Your task to perform on an android device: Do I have any events today? Image 0: 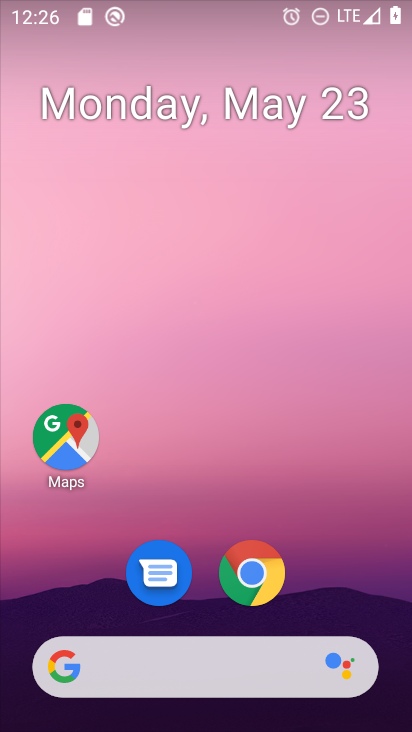
Step 0: drag from (320, 602) to (293, 39)
Your task to perform on an android device: Do I have any events today? Image 1: 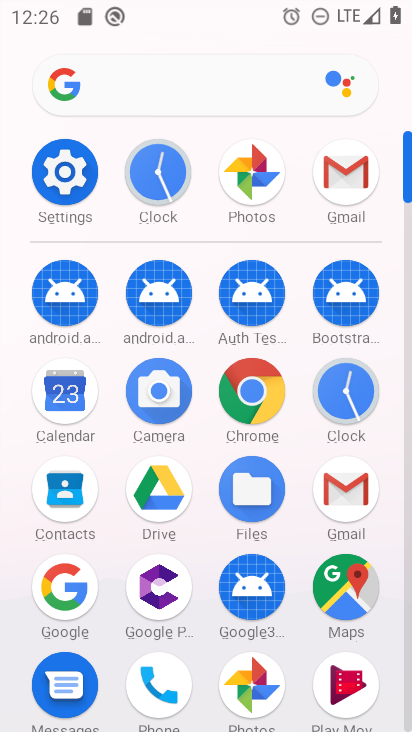
Step 1: click (56, 401)
Your task to perform on an android device: Do I have any events today? Image 2: 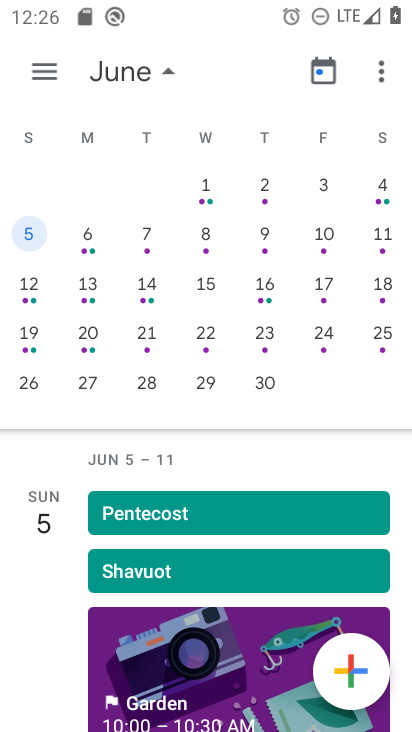
Step 2: drag from (53, 289) to (403, 285)
Your task to perform on an android device: Do I have any events today? Image 3: 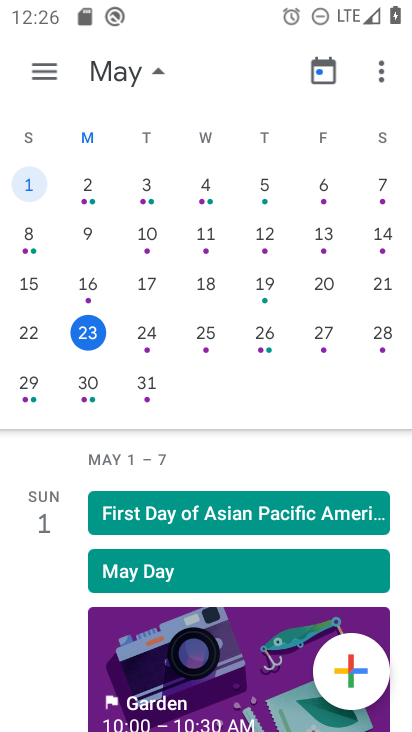
Step 3: click (87, 335)
Your task to perform on an android device: Do I have any events today? Image 4: 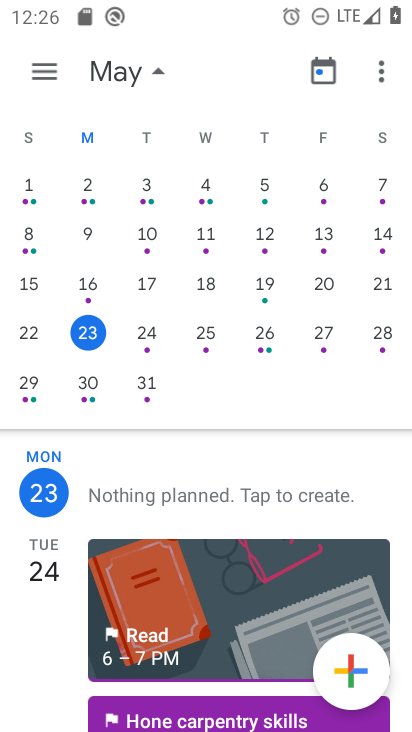
Step 4: task complete